Your task to perform on an android device: set the stopwatch Image 0: 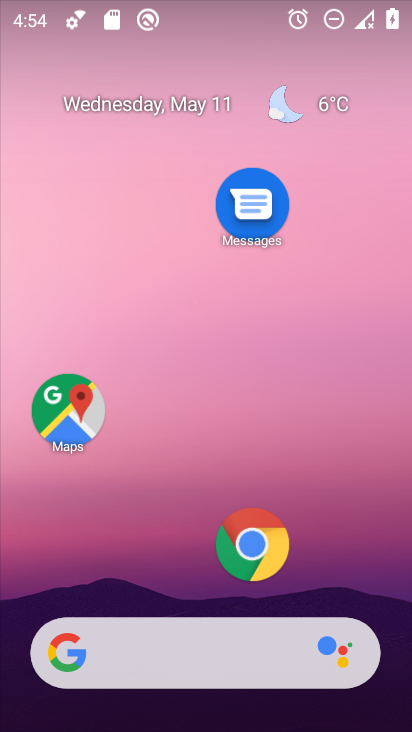
Step 0: drag from (176, 535) to (255, 3)
Your task to perform on an android device: set the stopwatch Image 1: 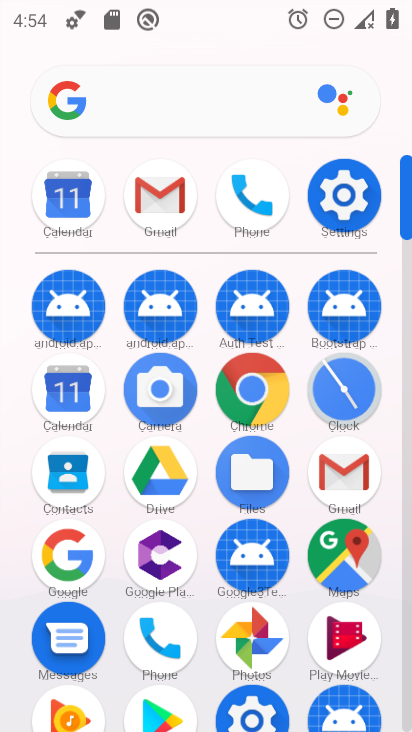
Step 1: click (329, 386)
Your task to perform on an android device: set the stopwatch Image 2: 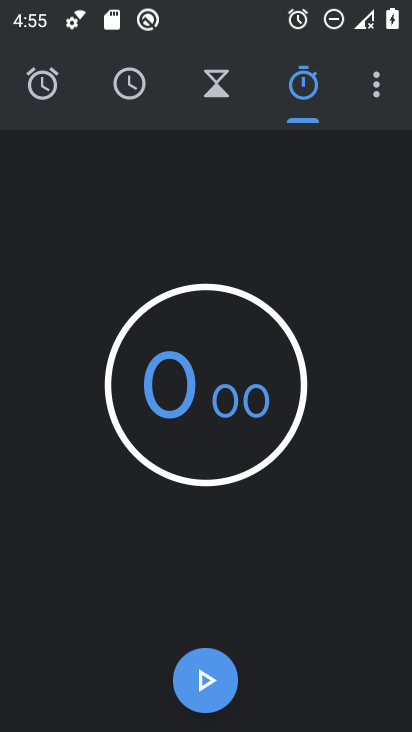
Step 2: click (210, 375)
Your task to perform on an android device: set the stopwatch Image 3: 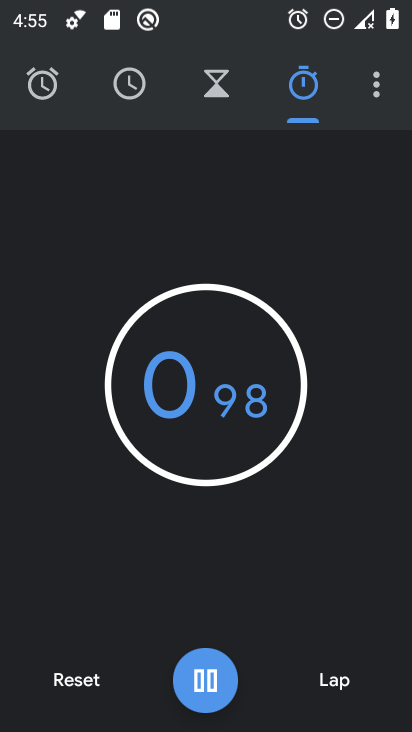
Step 3: click (210, 375)
Your task to perform on an android device: set the stopwatch Image 4: 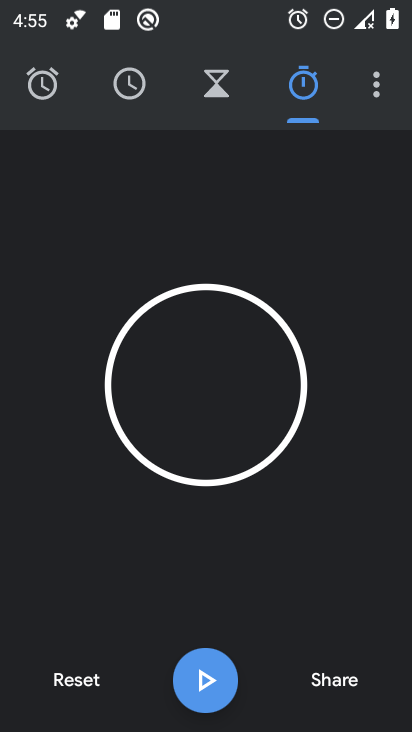
Step 4: task complete